Your task to perform on an android device: Go to network settings Image 0: 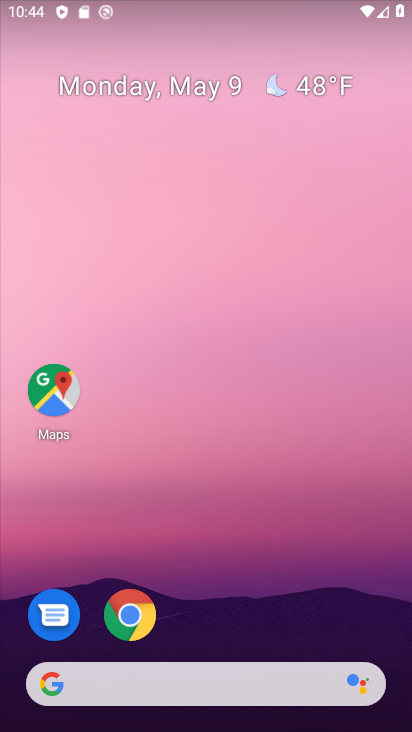
Step 0: drag from (190, 592) to (278, 52)
Your task to perform on an android device: Go to network settings Image 1: 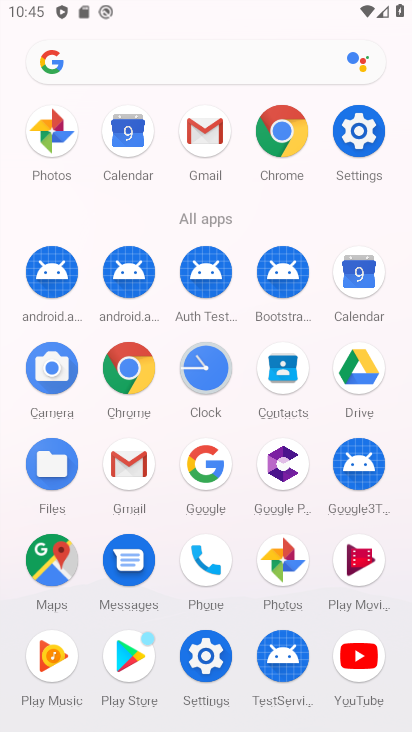
Step 1: click (357, 146)
Your task to perform on an android device: Go to network settings Image 2: 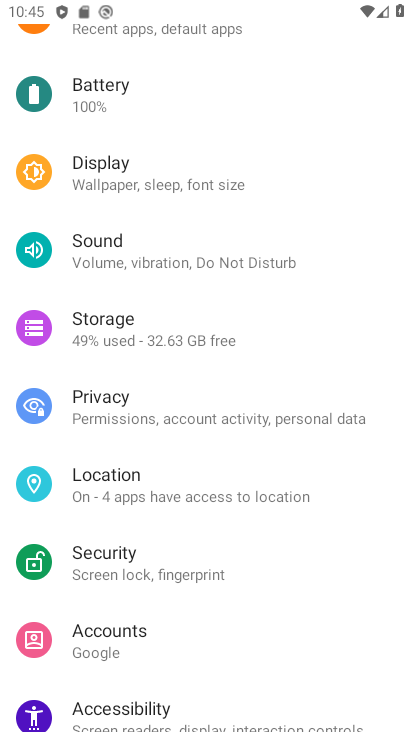
Step 2: drag from (236, 128) to (183, 722)
Your task to perform on an android device: Go to network settings Image 3: 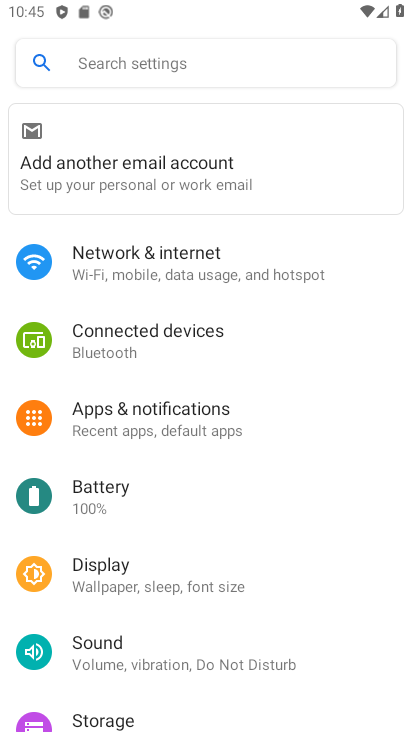
Step 3: click (207, 262)
Your task to perform on an android device: Go to network settings Image 4: 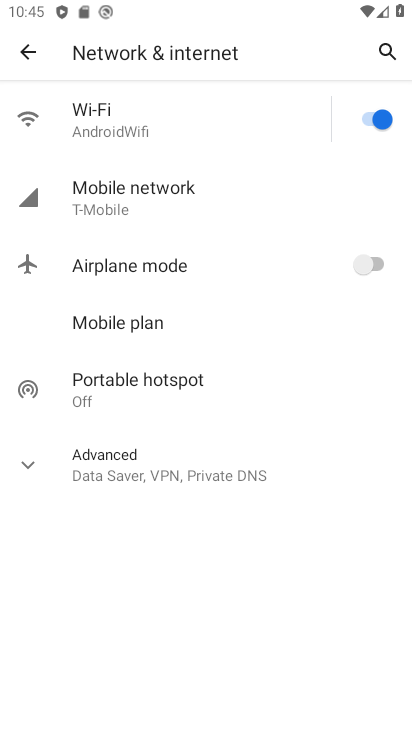
Step 4: click (198, 197)
Your task to perform on an android device: Go to network settings Image 5: 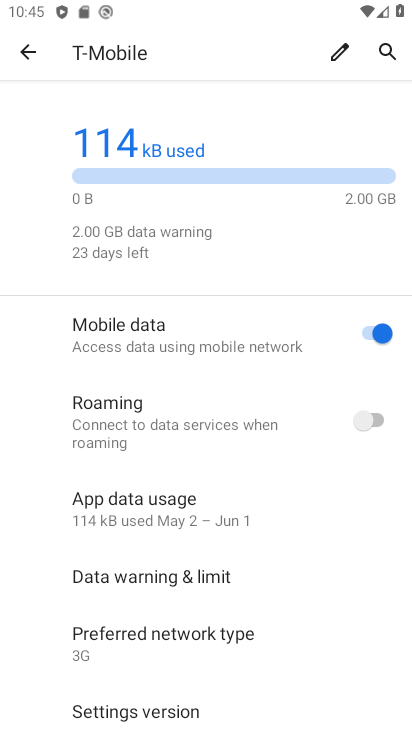
Step 5: task complete